Your task to perform on an android device: Open sound settings Image 0: 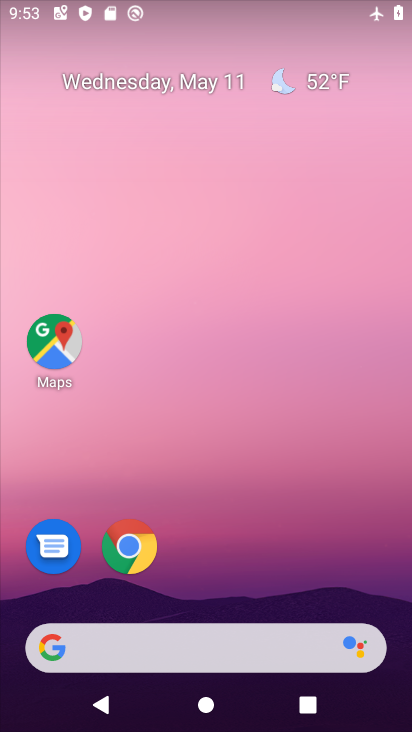
Step 0: drag from (191, 620) to (304, 112)
Your task to perform on an android device: Open sound settings Image 1: 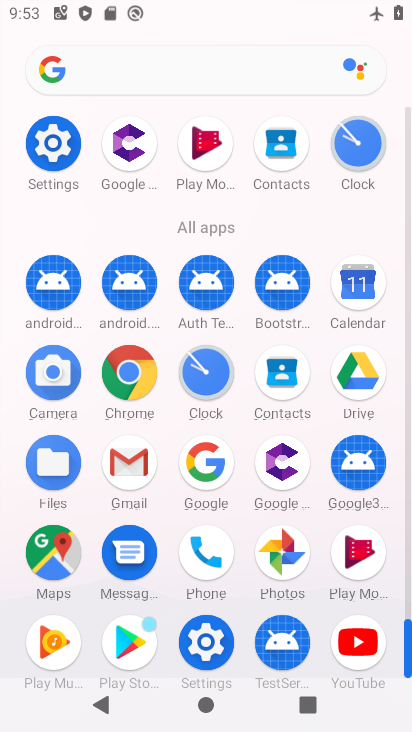
Step 1: click (219, 650)
Your task to perform on an android device: Open sound settings Image 2: 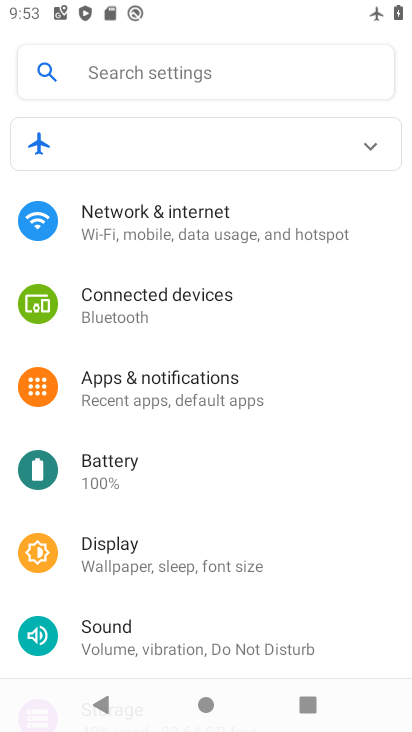
Step 2: click (158, 627)
Your task to perform on an android device: Open sound settings Image 3: 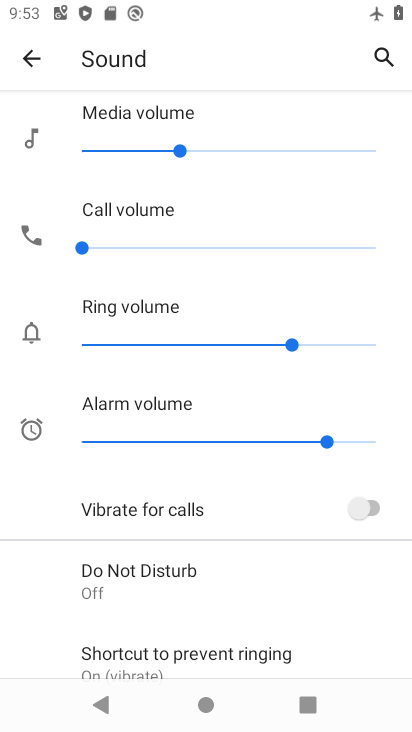
Step 3: task complete